Your task to perform on an android device: Open Android settings Image 0: 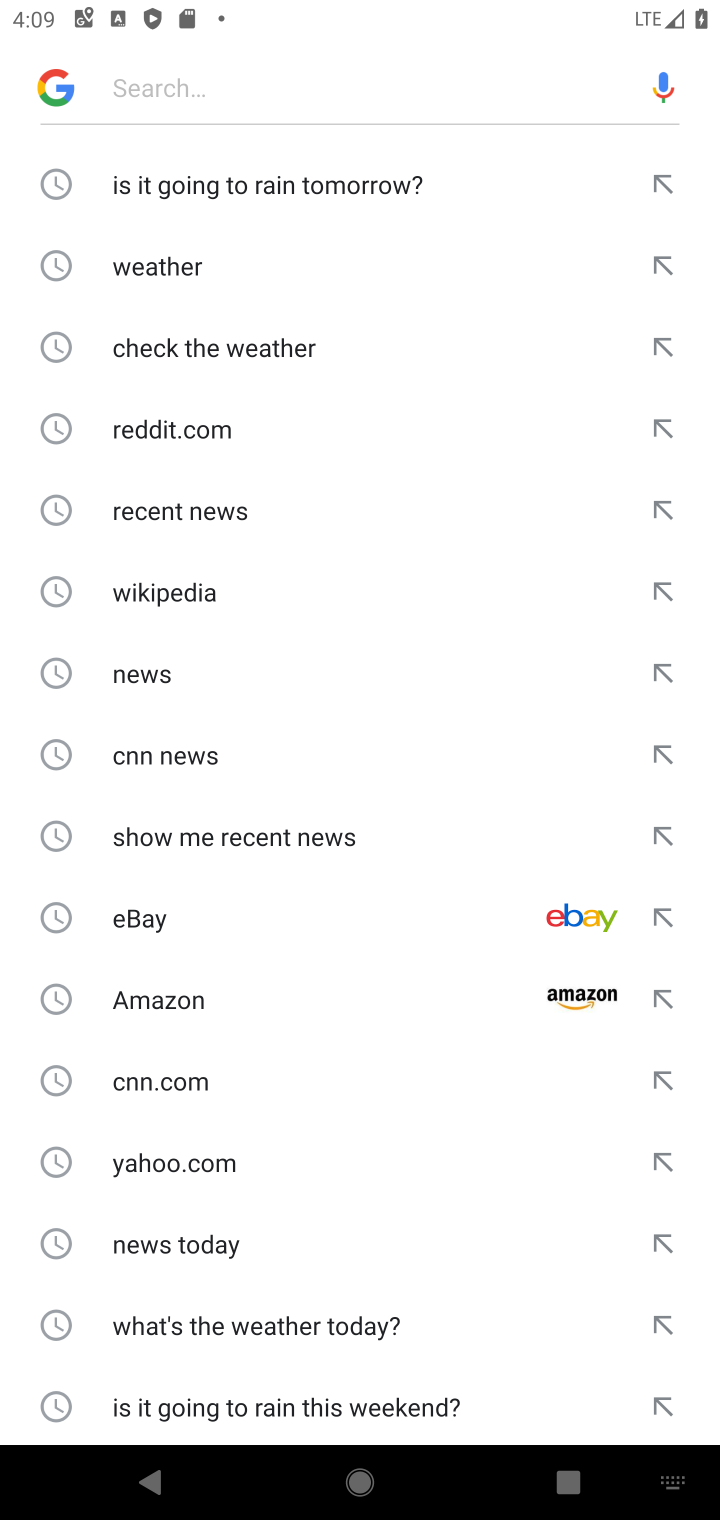
Step 0: press home button
Your task to perform on an android device: Open Android settings Image 1: 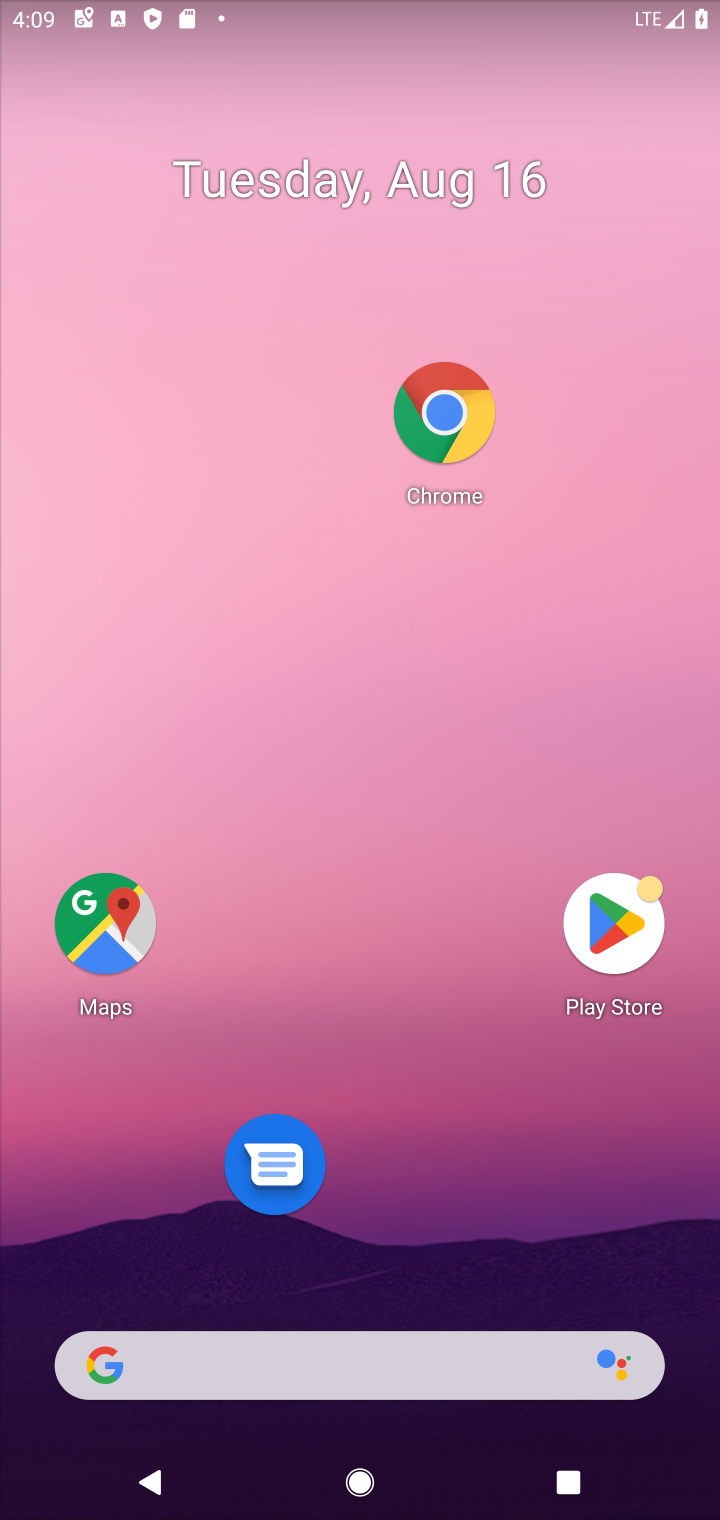
Step 1: drag from (412, 1245) to (245, 349)
Your task to perform on an android device: Open Android settings Image 2: 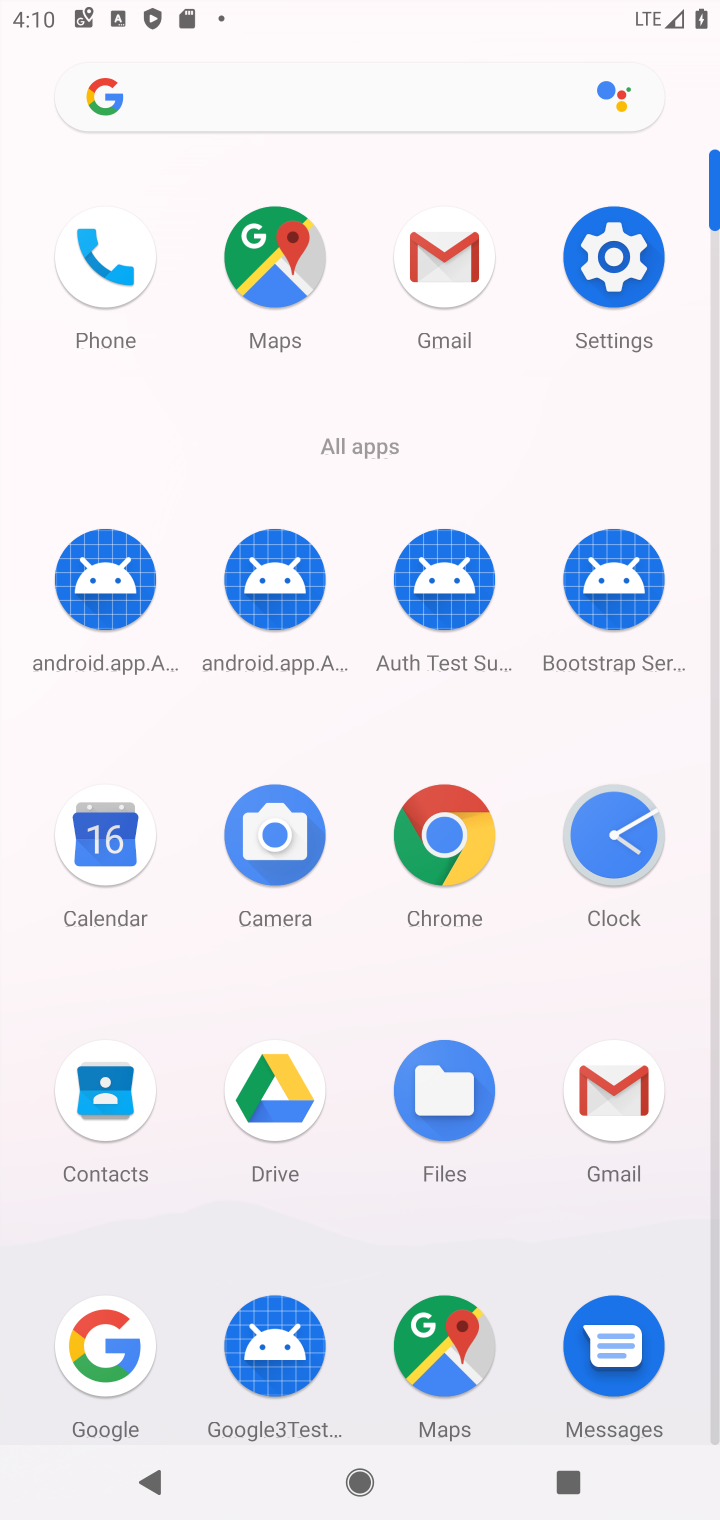
Step 2: drag from (359, 401) to (307, 117)
Your task to perform on an android device: Open Android settings Image 3: 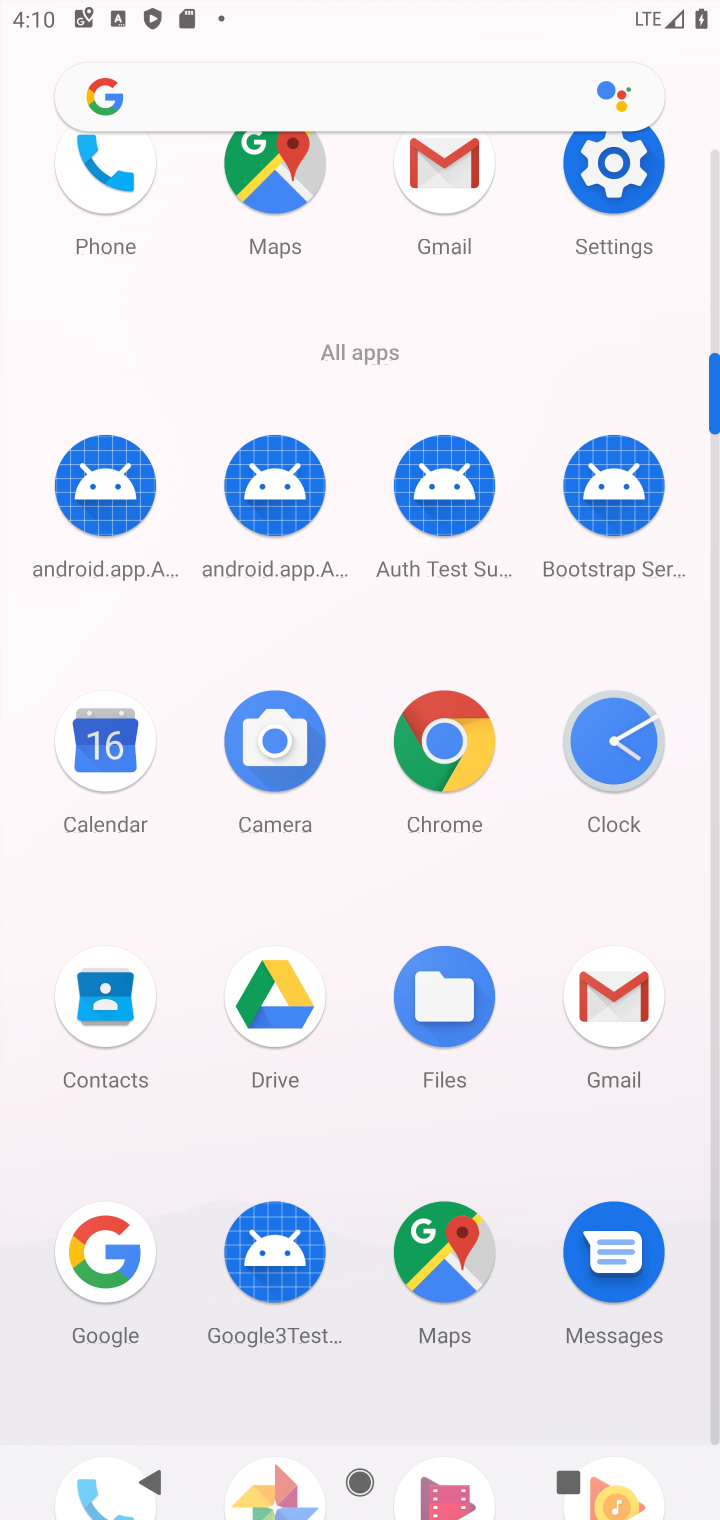
Step 3: click (618, 221)
Your task to perform on an android device: Open Android settings Image 4: 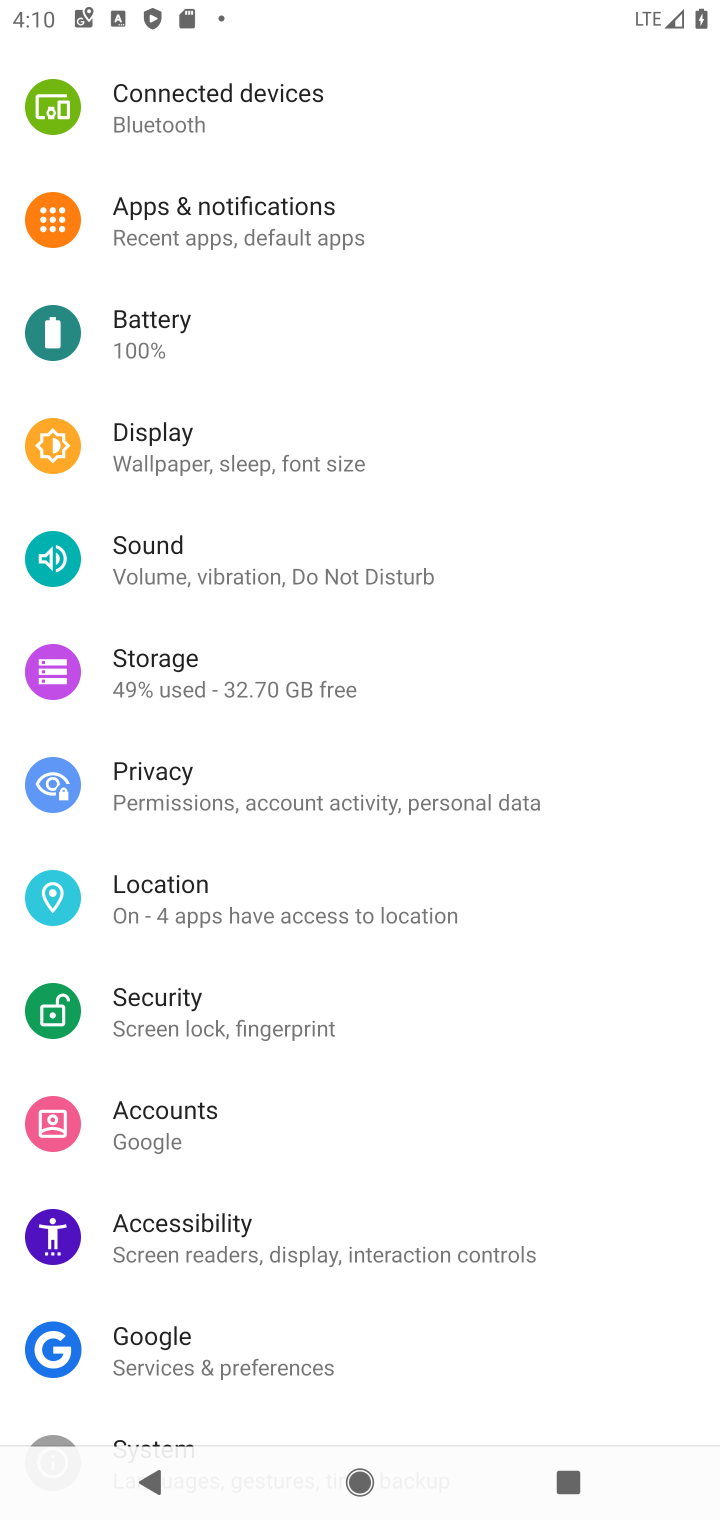
Step 4: task complete